Your task to perform on an android device: Open wifi settings Image 0: 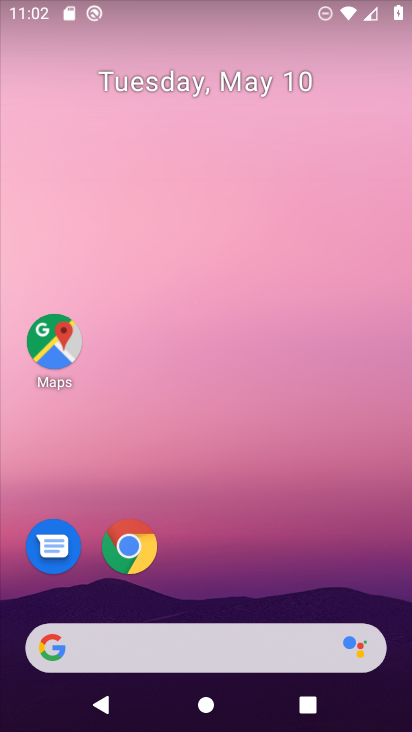
Step 0: drag from (337, 562) to (318, 180)
Your task to perform on an android device: Open wifi settings Image 1: 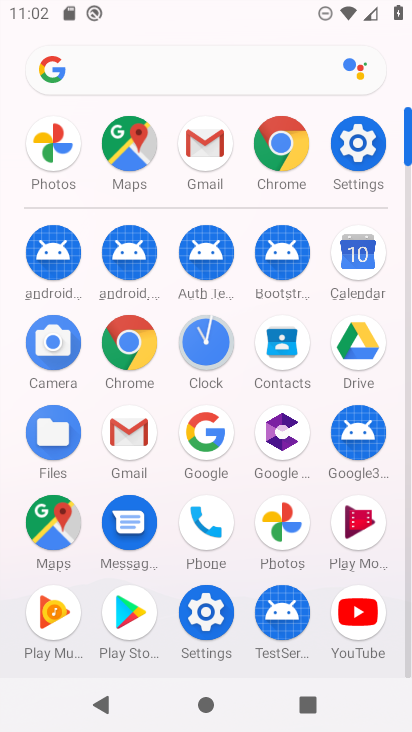
Step 1: click (363, 157)
Your task to perform on an android device: Open wifi settings Image 2: 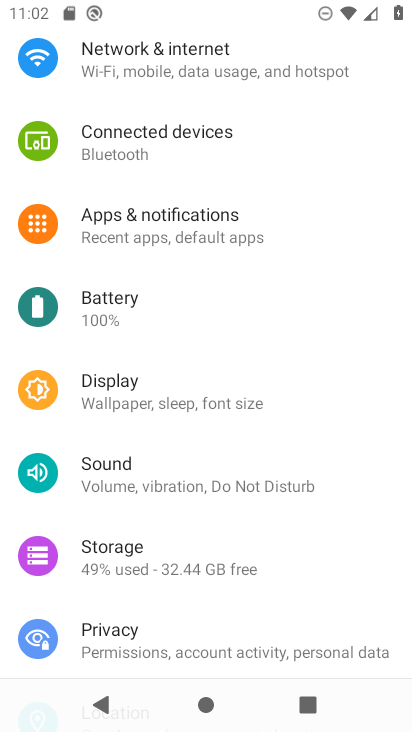
Step 2: drag from (131, 140) to (133, 495)
Your task to perform on an android device: Open wifi settings Image 3: 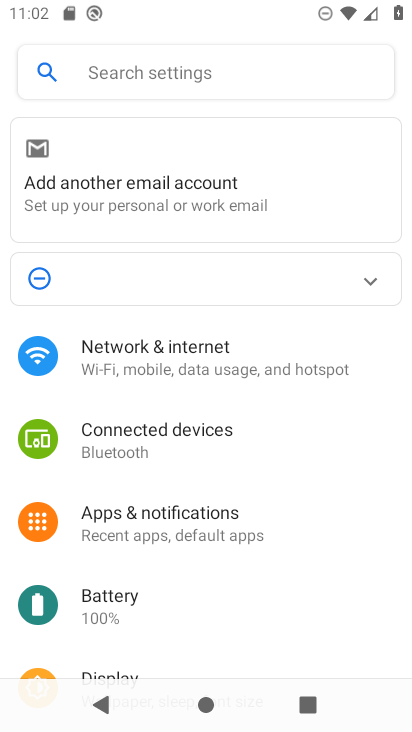
Step 3: click (196, 346)
Your task to perform on an android device: Open wifi settings Image 4: 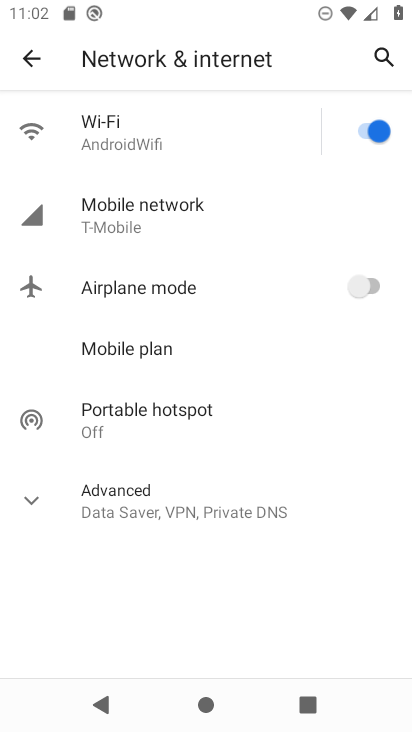
Step 4: click (155, 147)
Your task to perform on an android device: Open wifi settings Image 5: 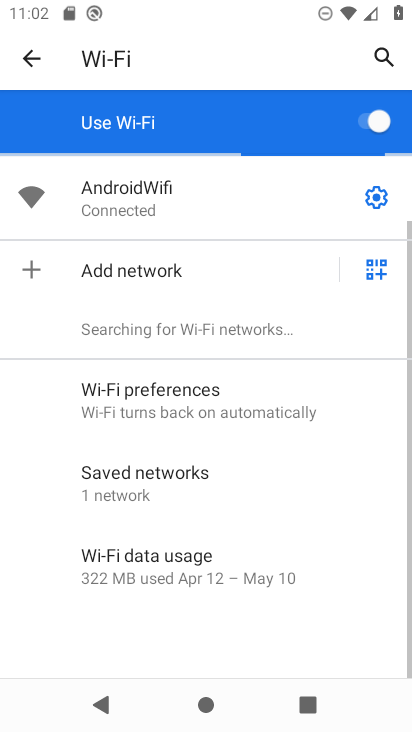
Step 5: click (382, 195)
Your task to perform on an android device: Open wifi settings Image 6: 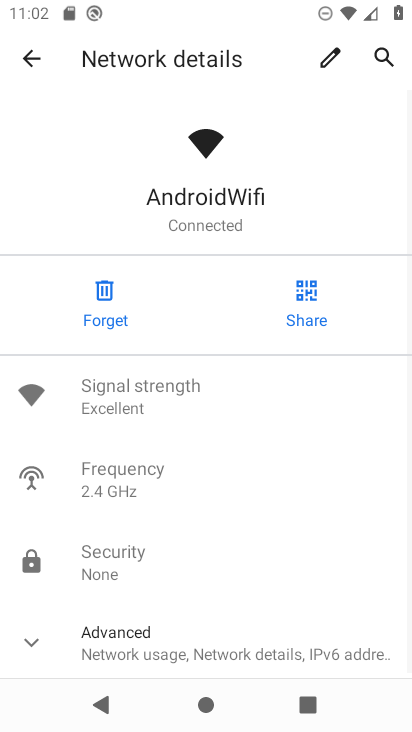
Step 6: task complete